Your task to perform on an android device: toggle show notifications on the lock screen Image 0: 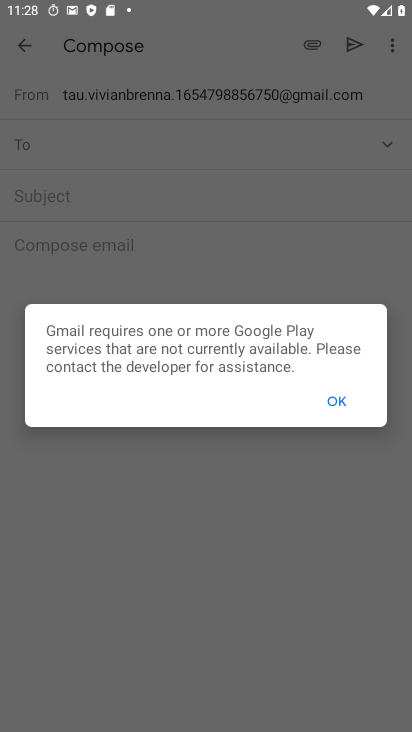
Step 0: press home button
Your task to perform on an android device: toggle show notifications on the lock screen Image 1: 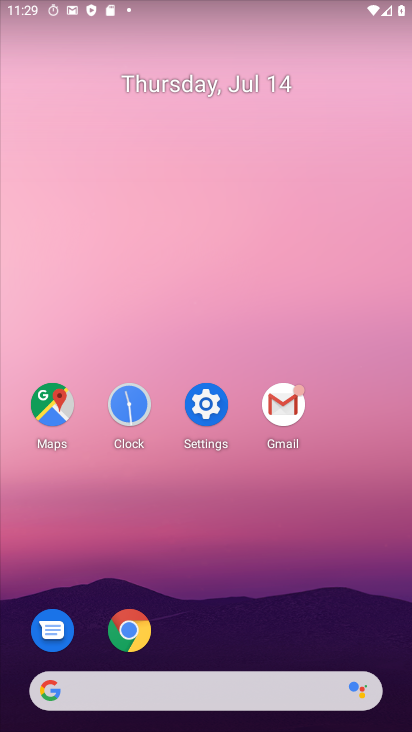
Step 1: drag from (384, 673) to (343, 114)
Your task to perform on an android device: toggle show notifications on the lock screen Image 2: 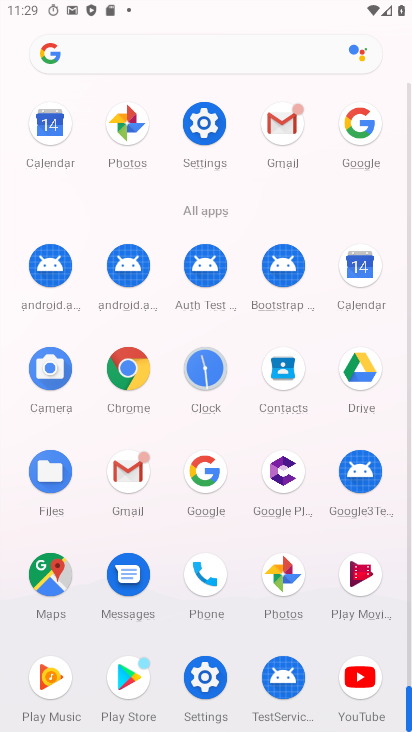
Step 2: click (209, 139)
Your task to perform on an android device: toggle show notifications on the lock screen Image 3: 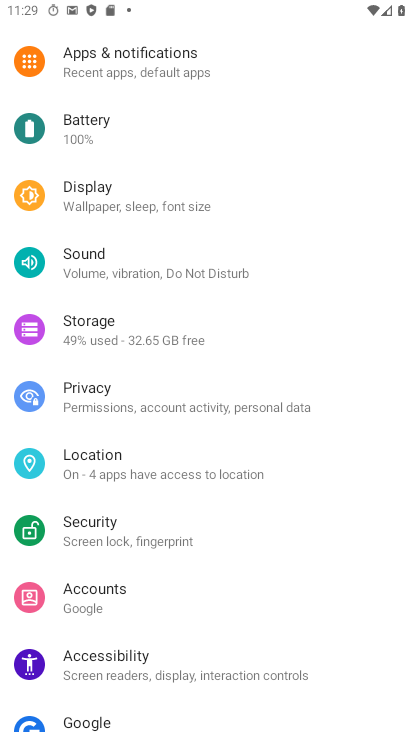
Step 3: click (117, 62)
Your task to perform on an android device: toggle show notifications on the lock screen Image 4: 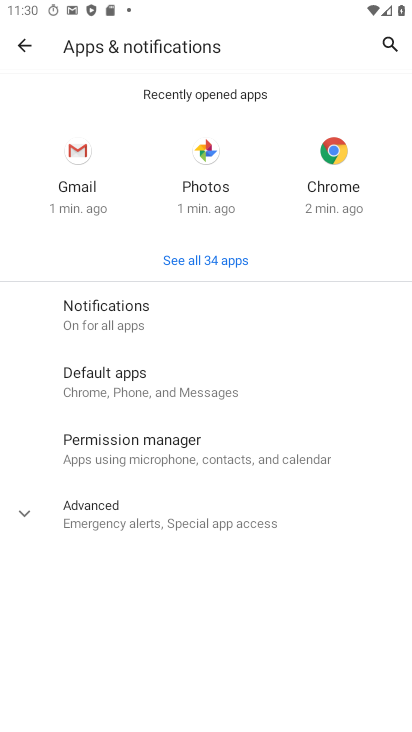
Step 4: click (72, 321)
Your task to perform on an android device: toggle show notifications on the lock screen Image 5: 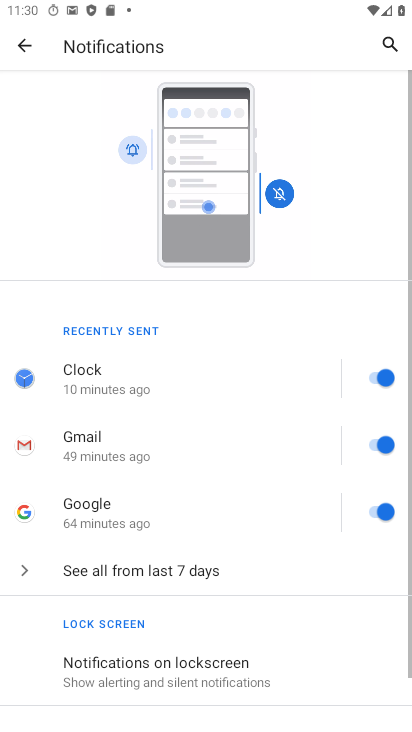
Step 5: click (153, 662)
Your task to perform on an android device: toggle show notifications on the lock screen Image 6: 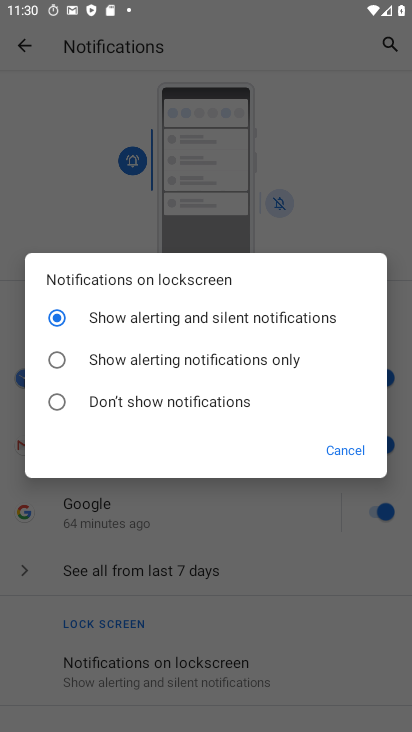
Step 6: click (56, 356)
Your task to perform on an android device: toggle show notifications on the lock screen Image 7: 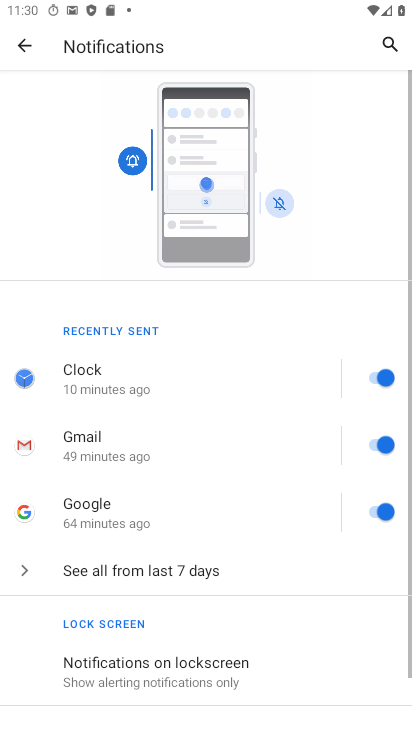
Step 7: task complete